Your task to perform on an android device: Search for sushi restaurants on Maps Image 0: 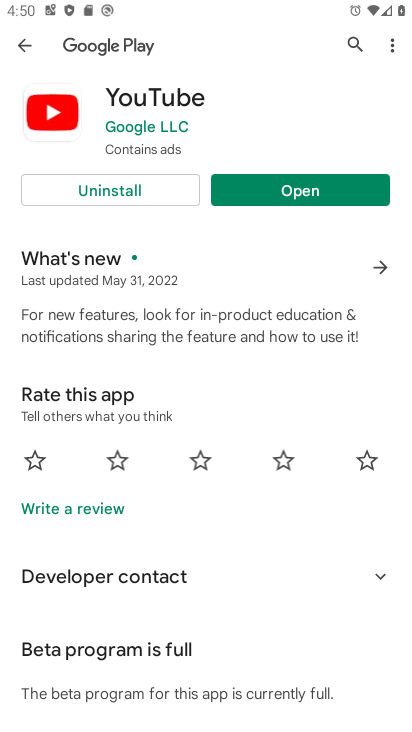
Step 0: press home button
Your task to perform on an android device: Search for sushi restaurants on Maps Image 1: 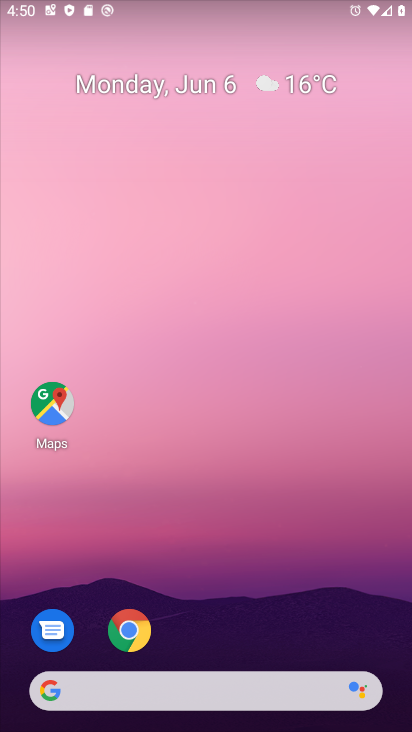
Step 1: drag from (206, 243) to (215, 27)
Your task to perform on an android device: Search for sushi restaurants on Maps Image 2: 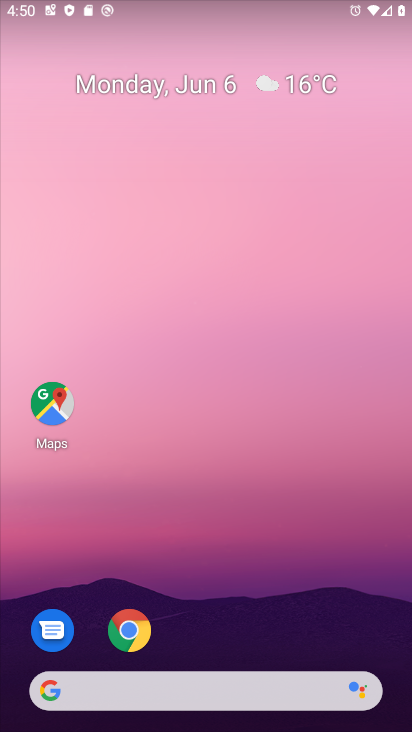
Step 2: click (56, 407)
Your task to perform on an android device: Search for sushi restaurants on Maps Image 3: 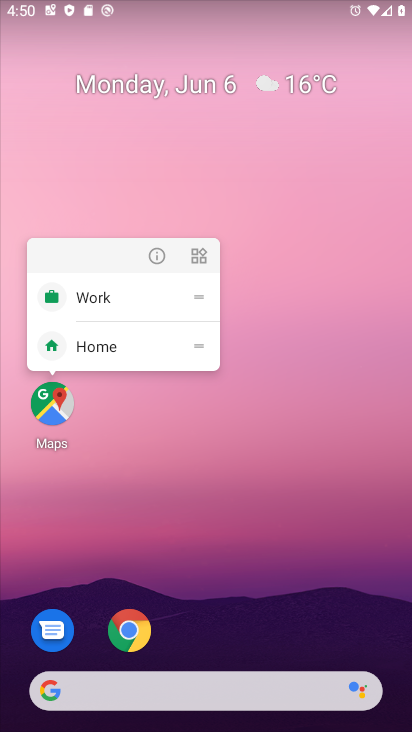
Step 3: click (41, 415)
Your task to perform on an android device: Search for sushi restaurants on Maps Image 4: 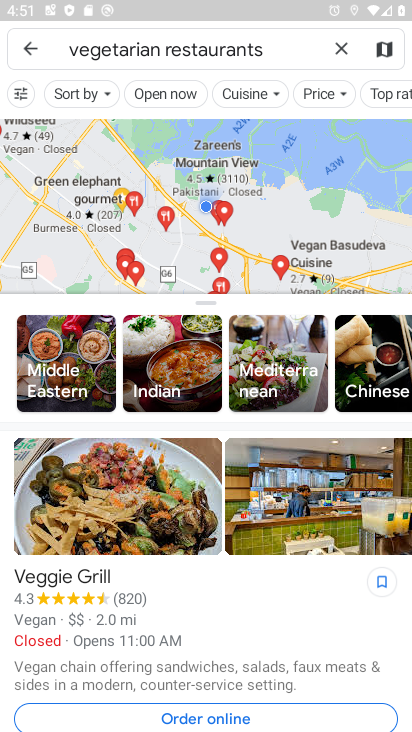
Step 4: click (335, 49)
Your task to perform on an android device: Search for sushi restaurants on Maps Image 5: 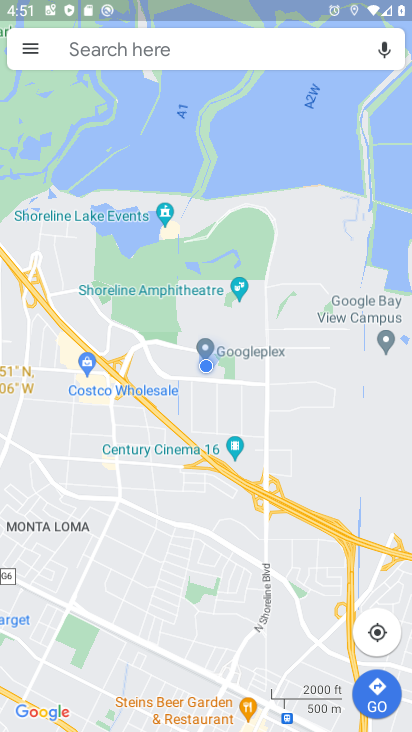
Step 5: click (185, 46)
Your task to perform on an android device: Search for sushi restaurants on Maps Image 6: 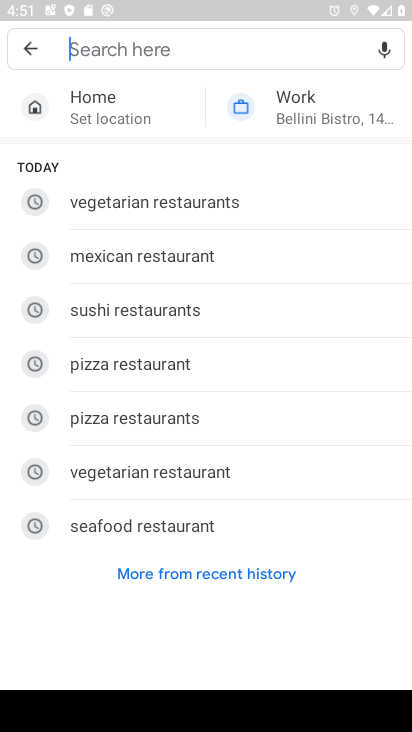
Step 6: click (194, 308)
Your task to perform on an android device: Search for sushi restaurants on Maps Image 7: 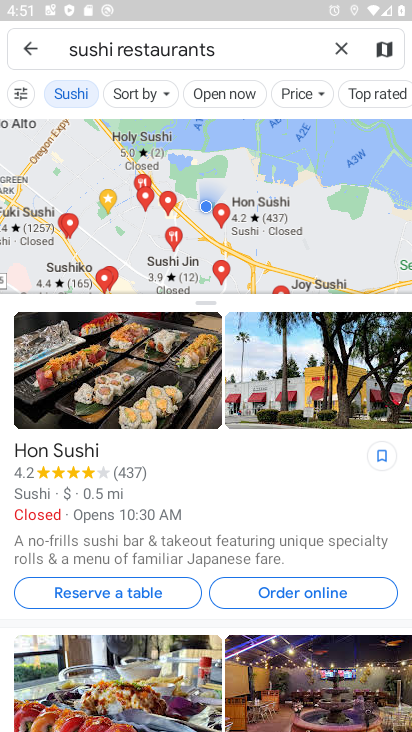
Step 7: task complete